Your task to perform on an android device: Open the phone app and click the voicemail tab. Image 0: 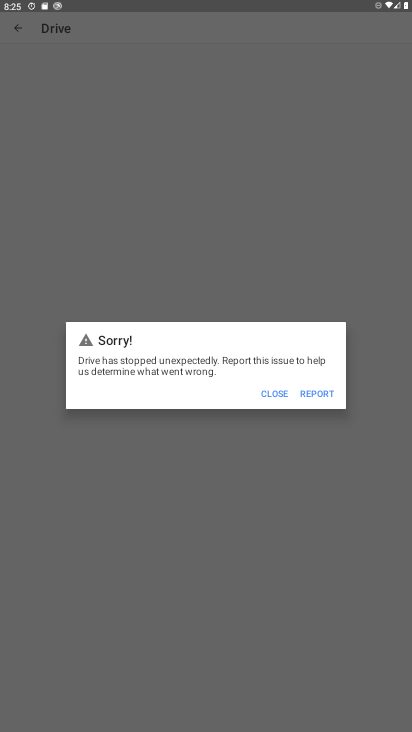
Step 0: press home button
Your task to perform on an android device: Open the phone app and click the voicemail tab. Image 1: 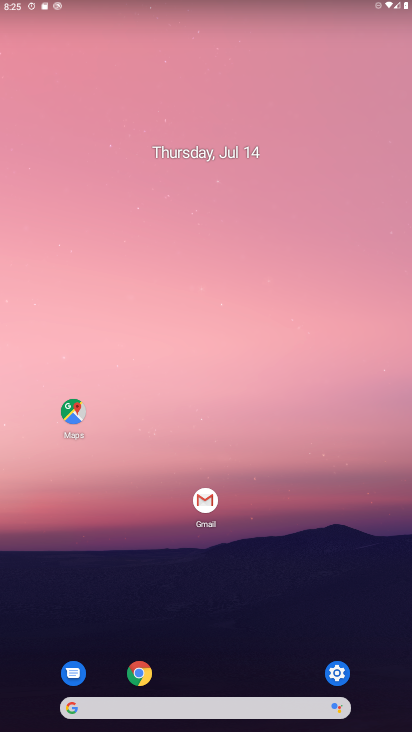
Step 1: drag from (320, 444) to (308, 72)
Your task to perform on an android device: Open the phone app and click the voicemail tab. Image 2: 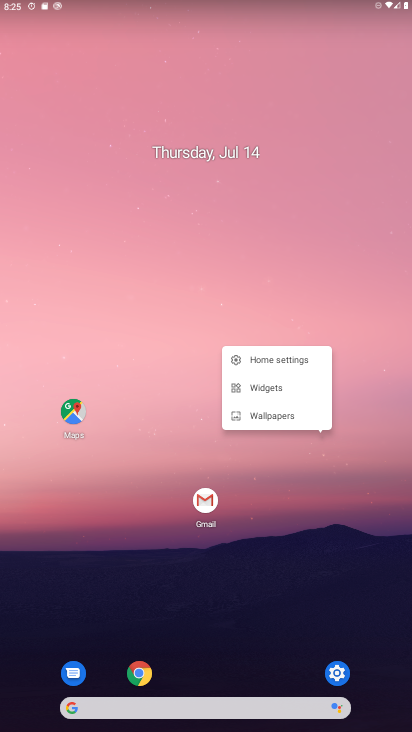
Step 2: click (276, 153)
Your task to perform on an android device: Open the phone app and click the voicemail tab. Image 3: 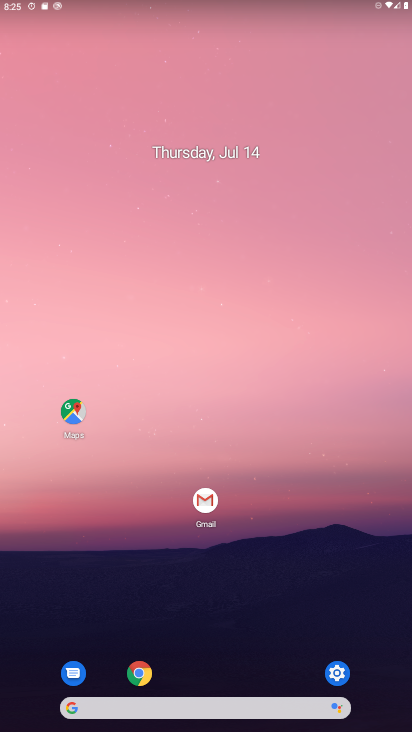
Step 3: drag from (299, 716) to (297, 0)
Your task to perform on an android device: Open the phone app and click the voicemail tab. Image 4: 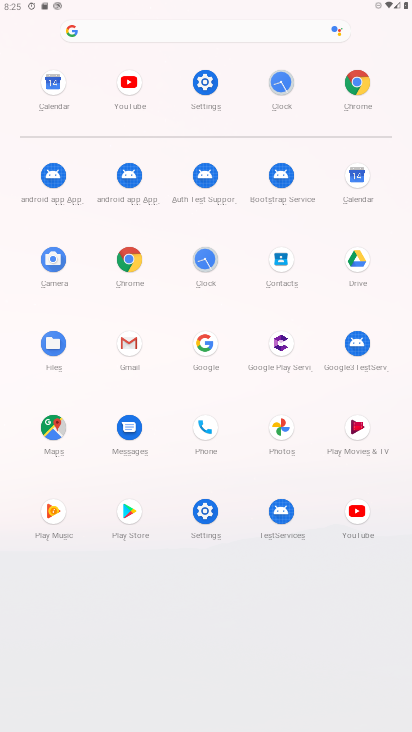
Step 4: click (210, 439)
Your task to perform on an android device: Open the phone app and click the voicemail tab. Image 5: 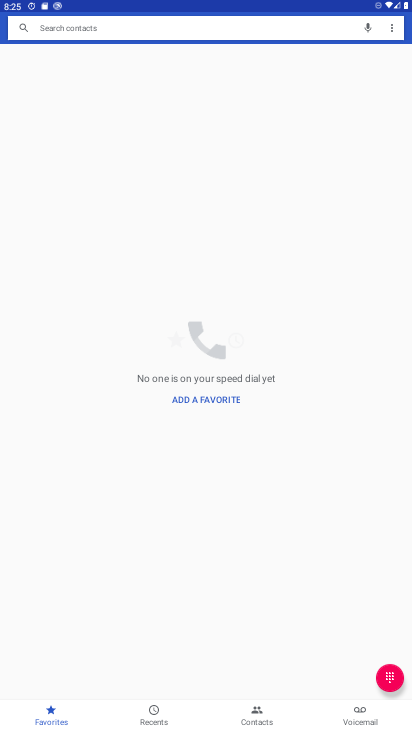
Step 5: click (365, 716)
Your task to perform on an android device: Open the phone app and click the voicemail tab. Image 6: 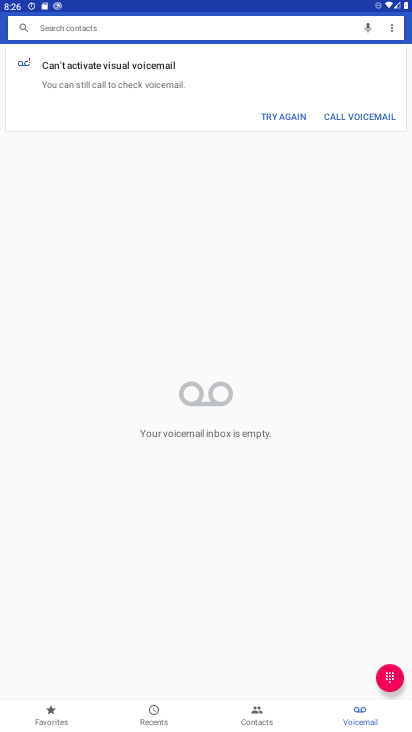
Step 6: task complete